Your task to perform on an android device: Open Amazon Image 0: 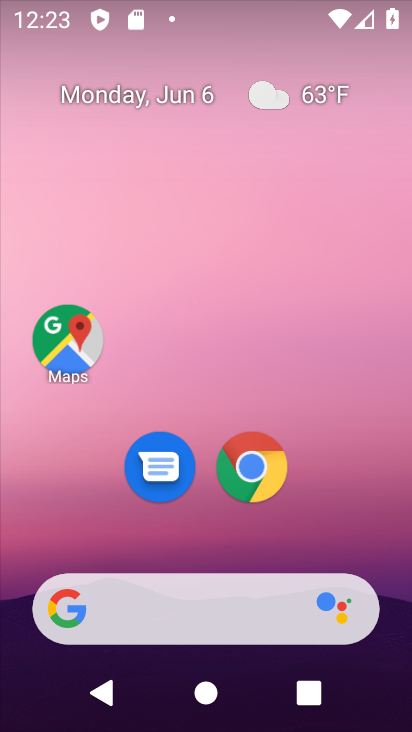
Step 0: drag from (393, 584) to (293, 104)
Your task to perform on an android device: Open Amazon Image 1: 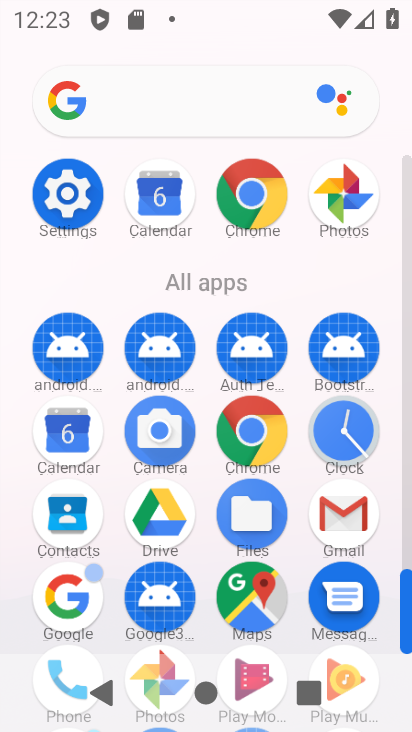
Step 1: click (69, 595)
Your task to perform on an android device: Open Amazon Image 2: 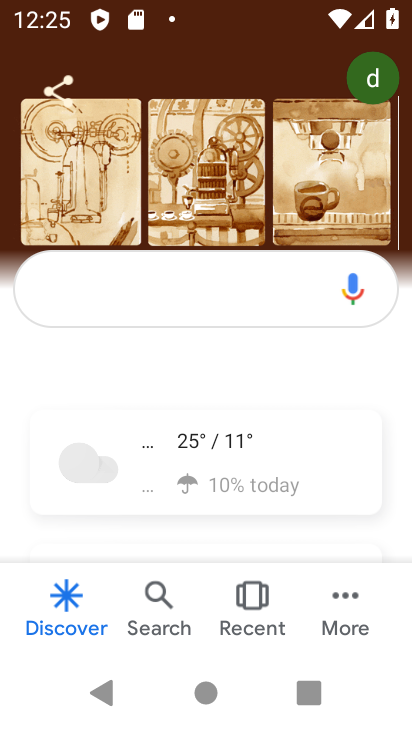
Step 2: click (155, 300)
Your task to perform on an android device: Open Amazon Image 3: 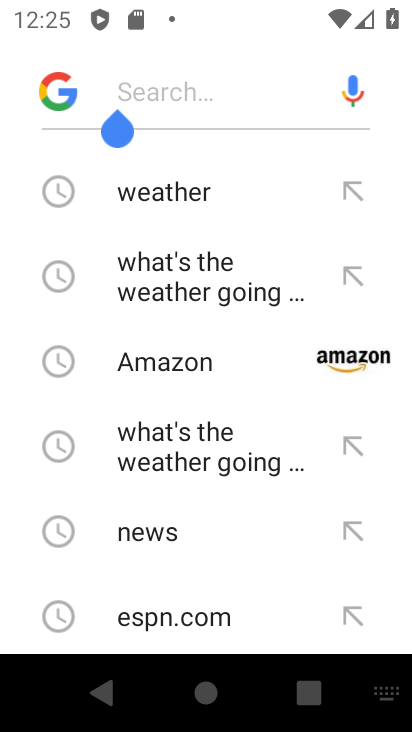
Step 3: click (186, 366)
Your task to perform on an android device: Open Amazon Image 4: 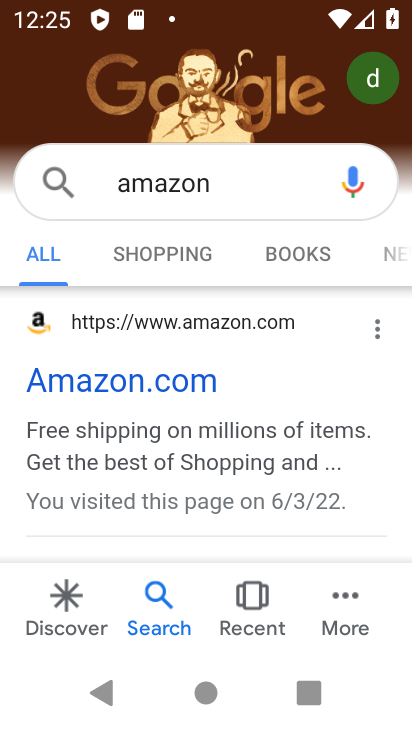
Step 4: task complete